Your task to perform on an android device: Show me popular games on the Play Store Image 0: 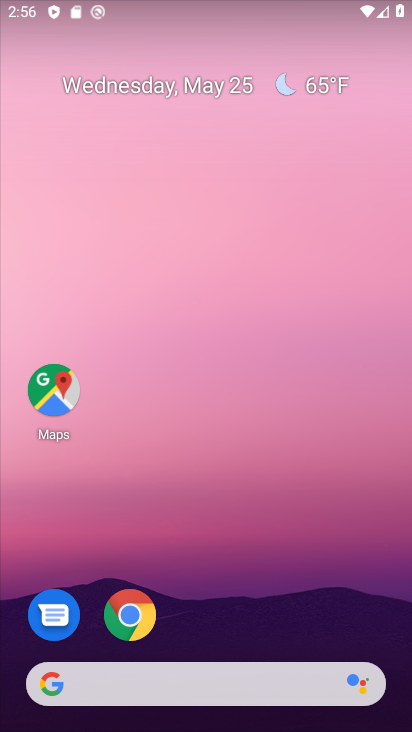
Step 0: drag from (286, 592) to (318, 6)
Your task to perform on an android device: Show me popular games on the Play Store Image 1: 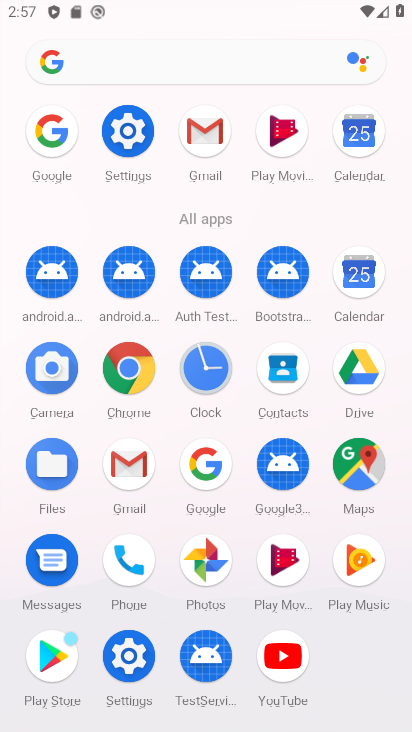
Step 1: click (43, 645)
Your task to perform on an android device: Show me popular games on the Play Store Image 2: 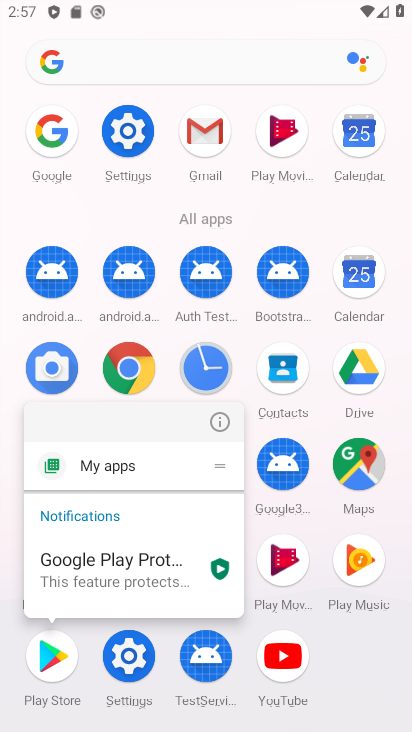
Step 2: click (389, 677)
Your task to perform on an android device: Show me popular games on the Play Store Image 3: 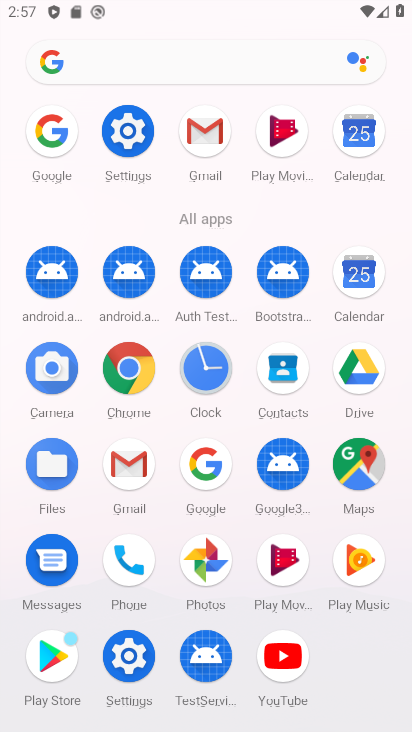
Step 3: click (54, 648)
Your task to perform on an android device: Show me popular games on the Play Store Image 4: 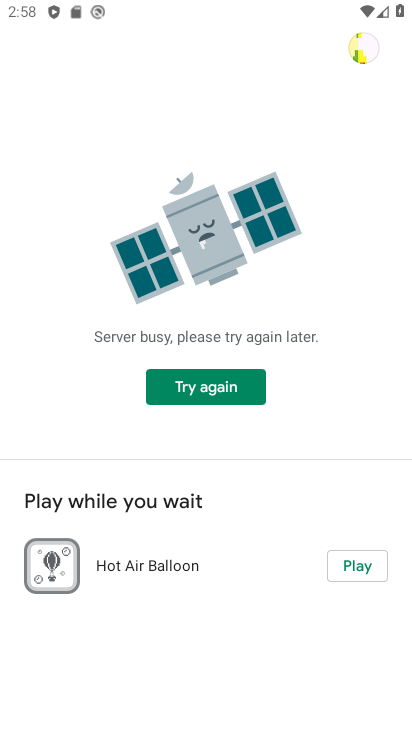
Step 4: click (230, 390)
Your task to perform on an android device: Show me popular games on the Play Store Image 5: 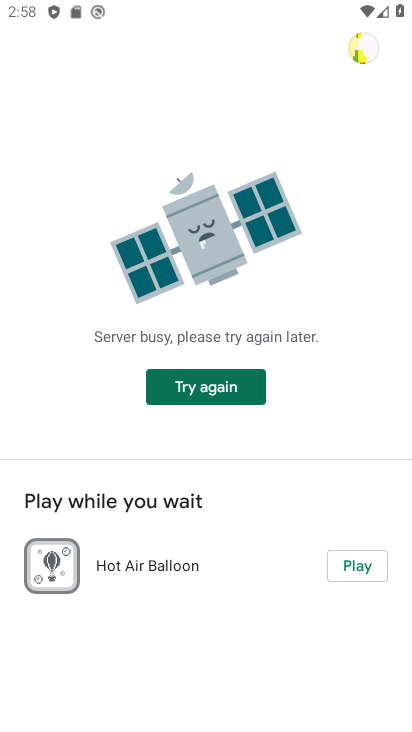
Step 5: task complete